Your task to perform on an android device: open sync settings in chrome Image 0: 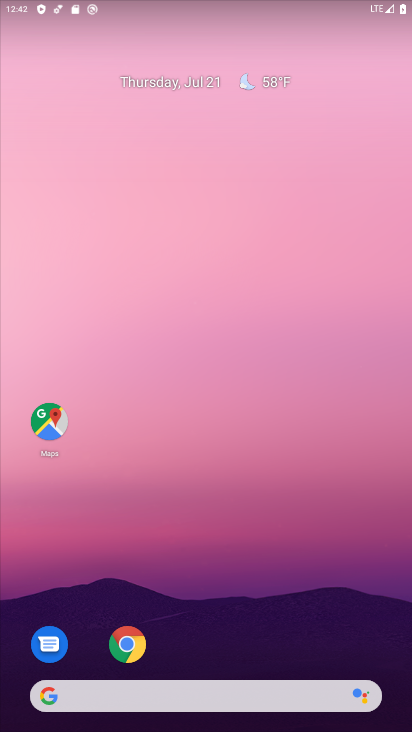
Step 0: click (375, 191)
Your task to perform on an android device: open sync settings in chrome Image 1: 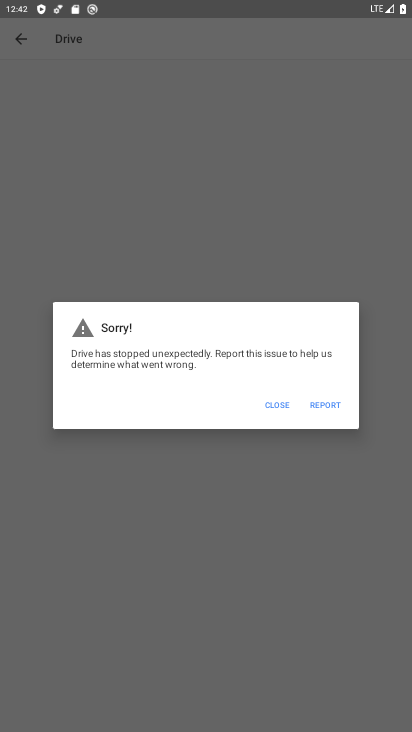
Step 1: press home button
Your task to perform on an android device: open sync settings in chrome Image 2: 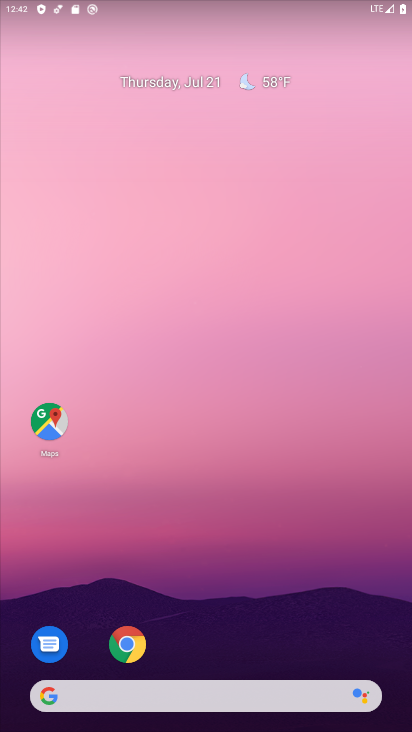
Step 2: drag from (363, 587) to (377, 189)
Your task to perform on an android device: open sync settings in chrome Image 3: 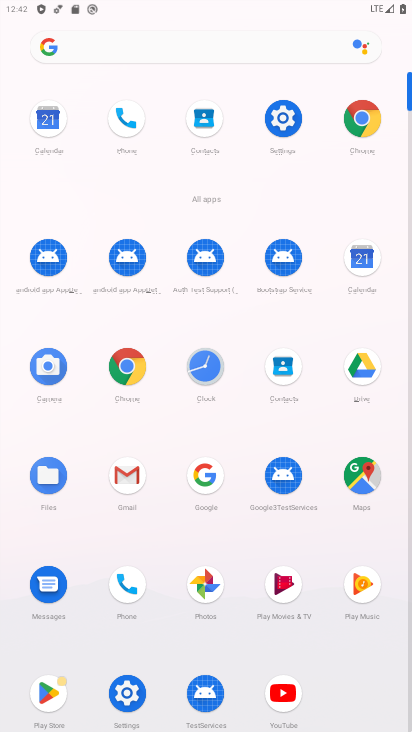
Step 3: click (363, 121)
Your task to perform on an android device: open sync settings in chrome Image 4: 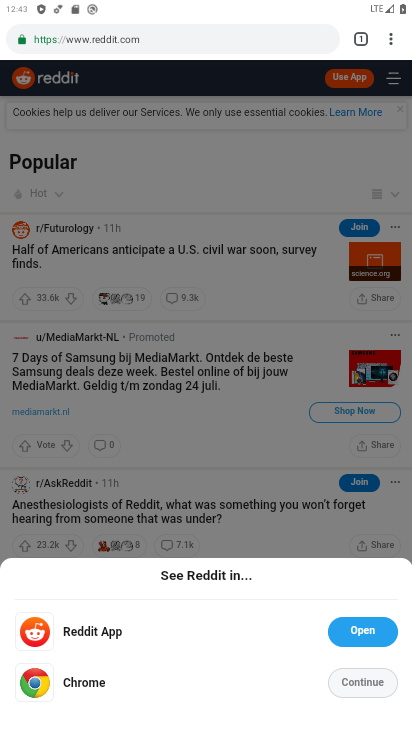
Step 4: click (393, 43)
Your task to perform on an android device: open sync settings in chrome Image 5: 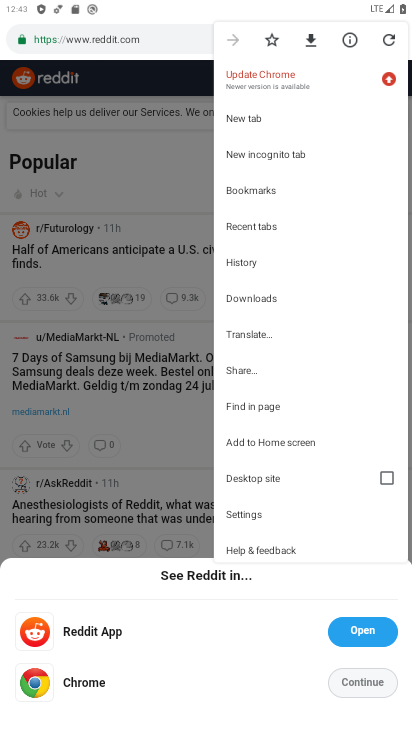
Step 5: click (269, 516)
Your task to perform on an android device: open sync settings in chrome Image 6: 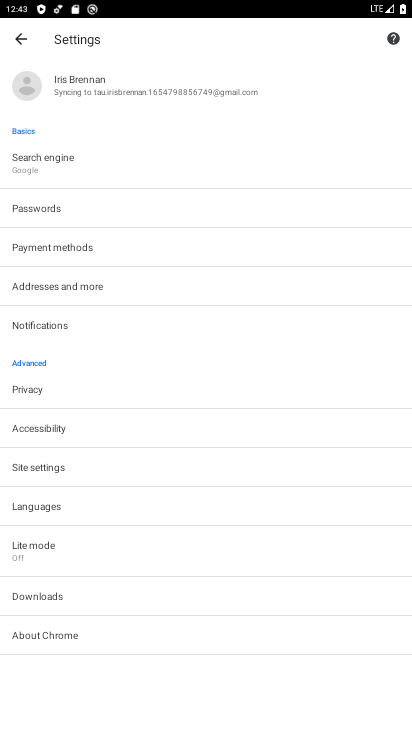
Step 6: drag from (274, 535) to (285, 406)
Your task to perform on an android device: open sync settings in chrome Image 7: 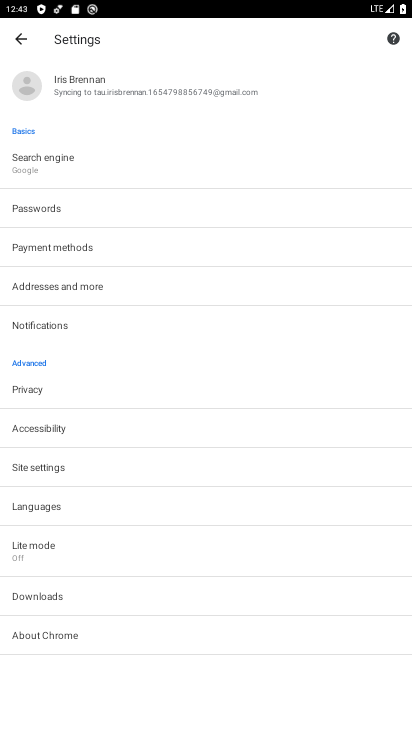
Step 7: drag from (277, 196) to (279, 345)
Your task to perform on an android device: open sync settings in chrome Image 8: 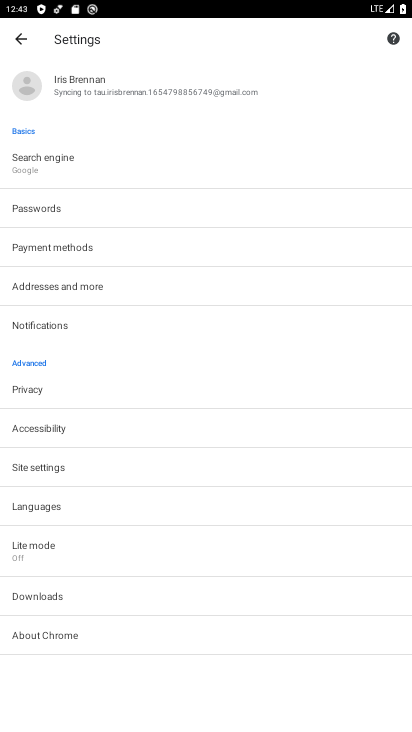
Step 8: click (261, 460)
Your task to perform on an android device: open sync settings in chrome Image 9: 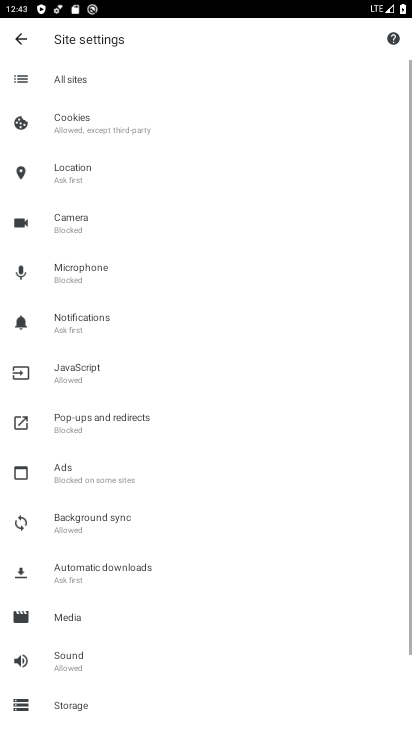
Step 9: drag from (273, 500) to (288, 459)
Your task to perform on an android device: open sync settings in chrome Image 10: 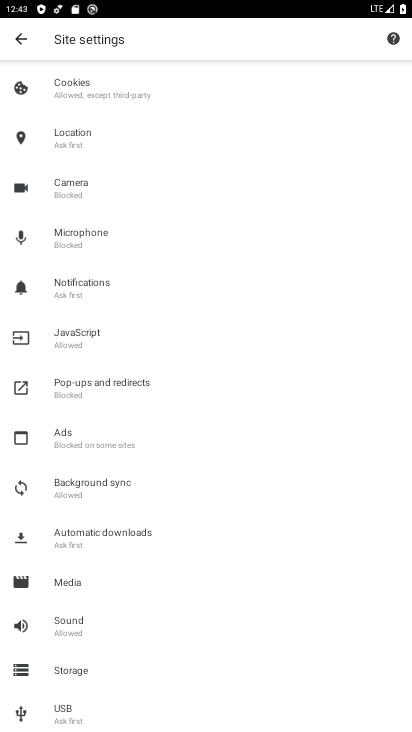
Step 10: click (116, 492)
Your task to perform on an android device: open sync settings in chrome Image 11: 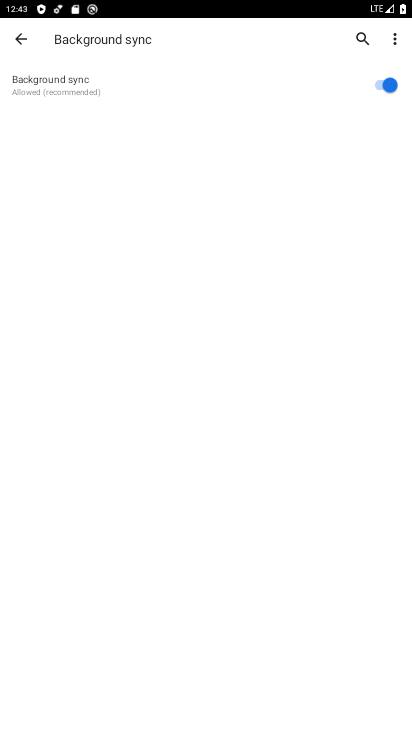
Step 11: task complete